Your task to perform on an android device: What's the weather? Image 0: 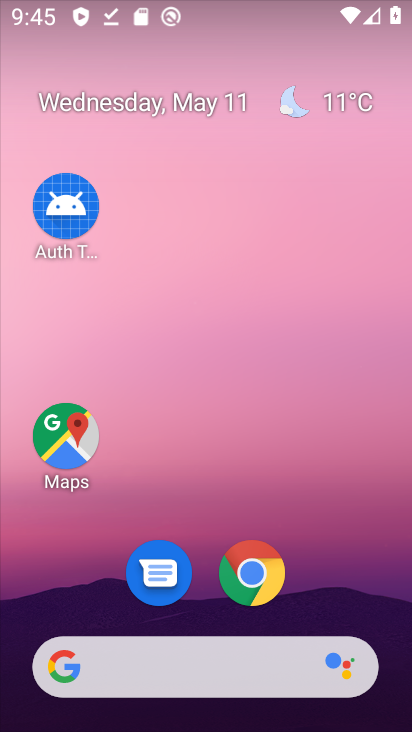
Step 0: drag from (351, 631) to (134, 61)
Your task to perform on an android device: What's the weather? Image 1: 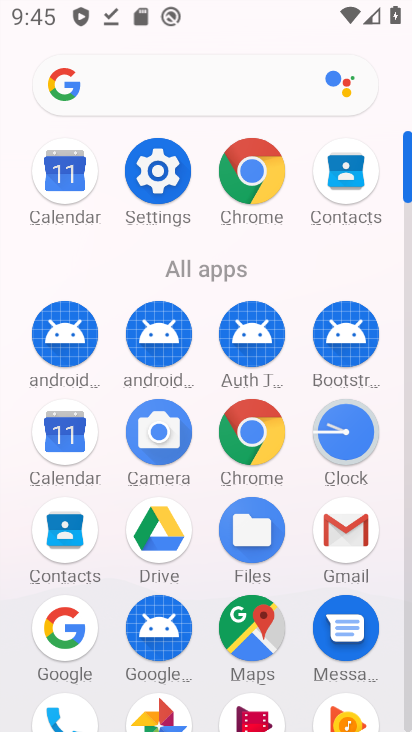
Step 1: press back button
Your task to perform on an android device: What's the weather? Image 2: 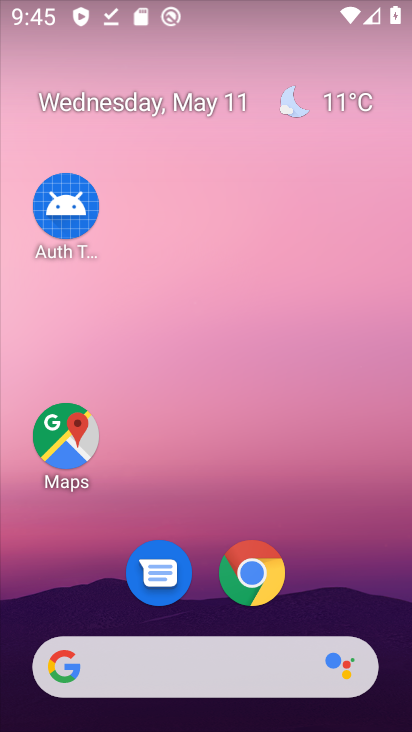
Step 2: drag from (6, 172) to (400, 390)
Your task to perform on an android device: What's the weather? Image 3: 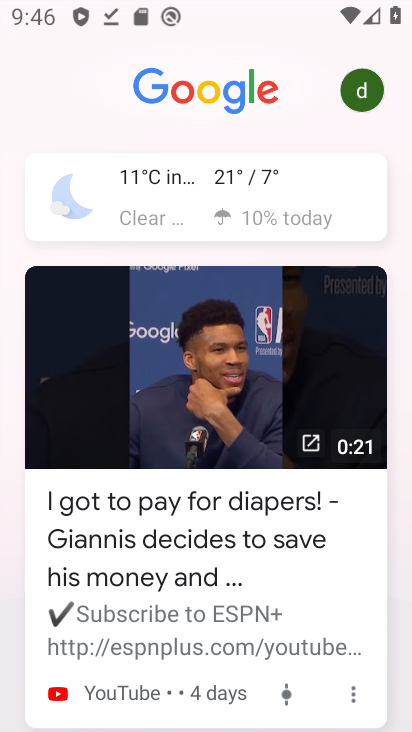
Step 3: click (177, 199)
Your task to perform on an android device: What's the weather? Image 4: 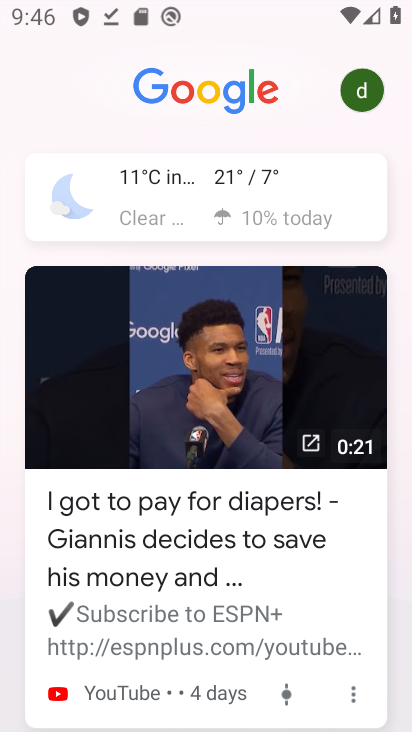
Step 4: click (178, 199)
Your task to perform on an android device: What's the weather? Image 5: 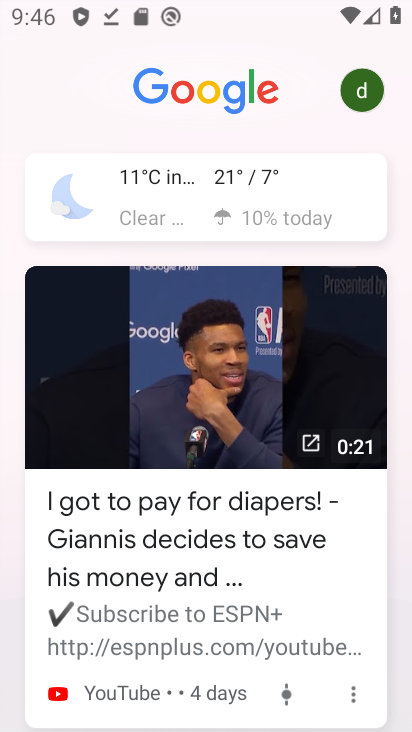
Step 5: click (179, 200)
Your task to perform on an android device: What's the weather? Image 6: 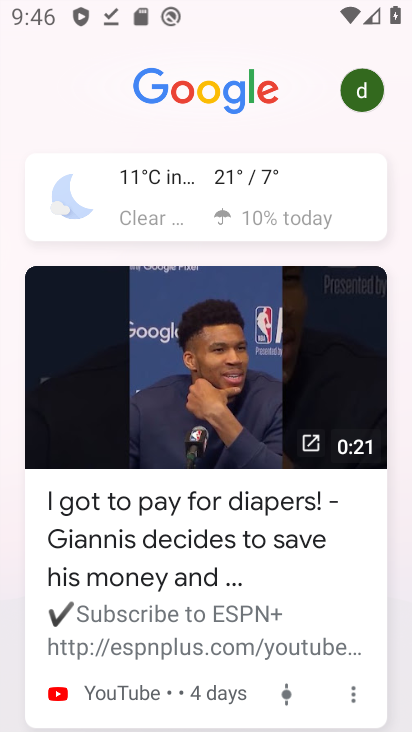
Step 6: click (181, 199)
Your task to perform on an android device: What's the weather? Image 7: 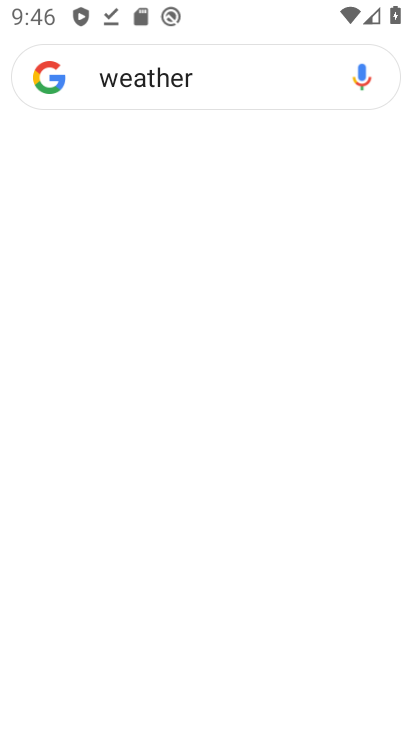
Step 7: click (229, 203)
Your task to perform on an android device: What's the weather? Image 8: 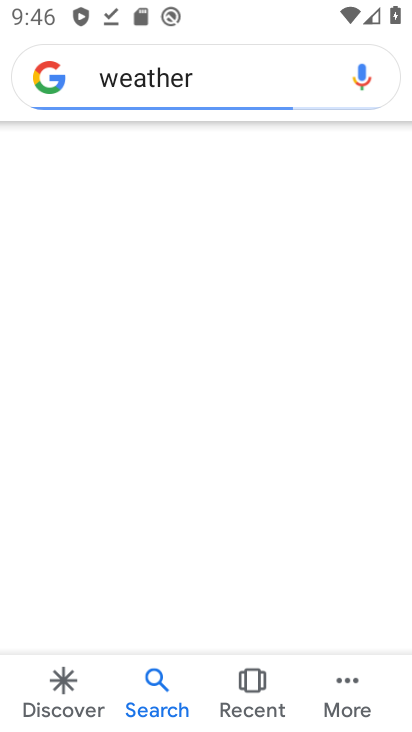
Step 8: click (229, 203)
Your task to perform on an android device: What's the weather? Image 9: 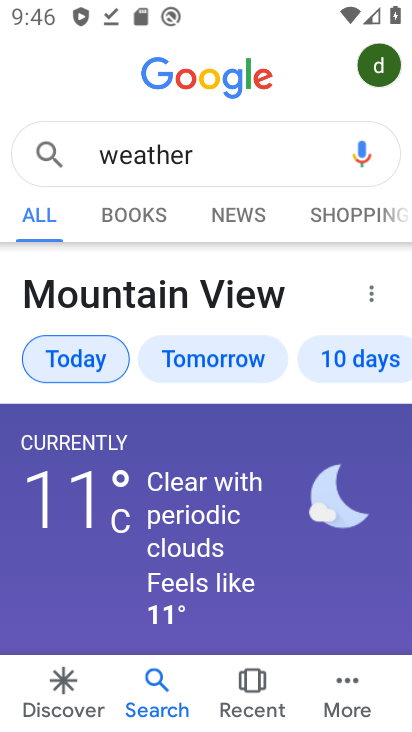
Step 9: click (229, 364)
Your task to perform on an android device: What's the weather? Image 10: 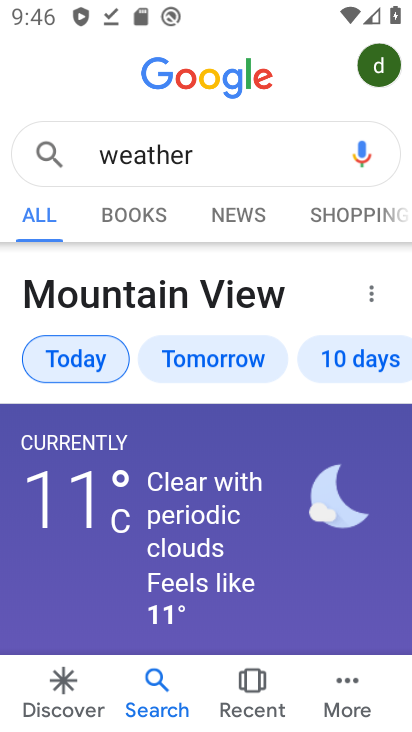
Step 10: click (229, 364)
Your task to perform on an android device: What's the weather? Image 11: 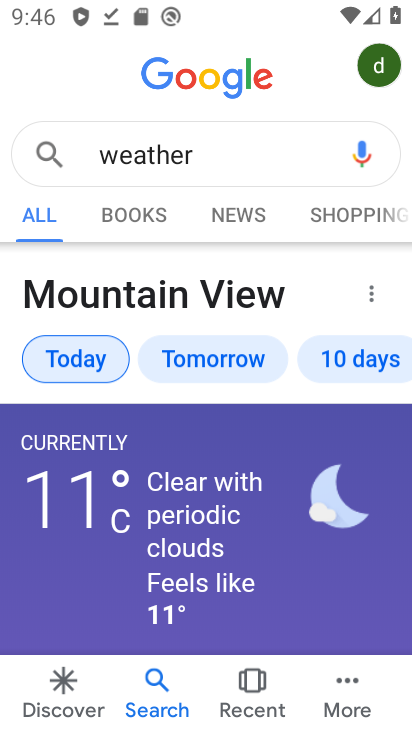
Step 11: click (228, 375)
Your task to perform on an android device: What's the weather? Image 12: 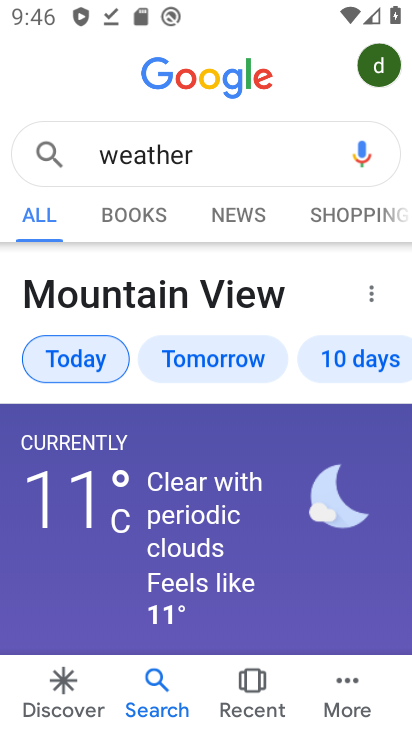
Step 12: click (229, 378)
Your task to perform on an android device: What's the weather? Image 13: 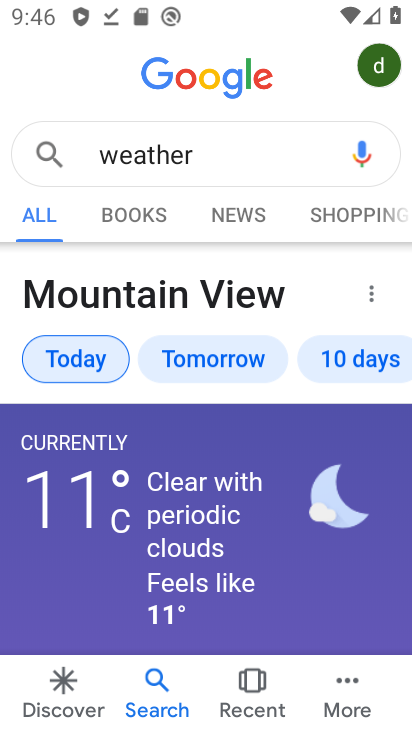
Step 13: click (229, 378)
Your task to perform on an android device: What's the weather? Image 14: 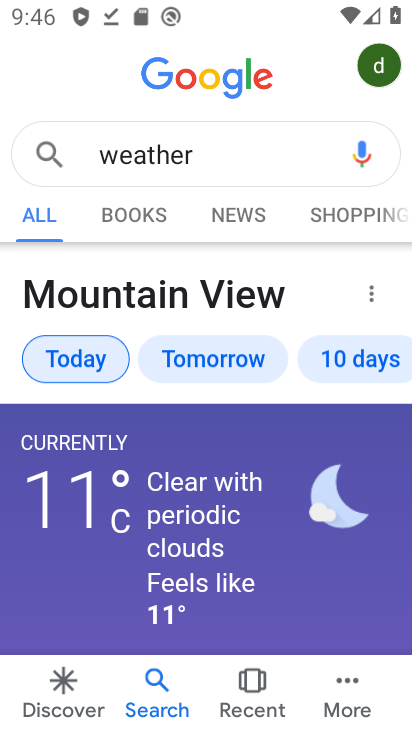
Step 14: click (223, 366)
Your task to perform on an android device: What's the weather? Image 15: 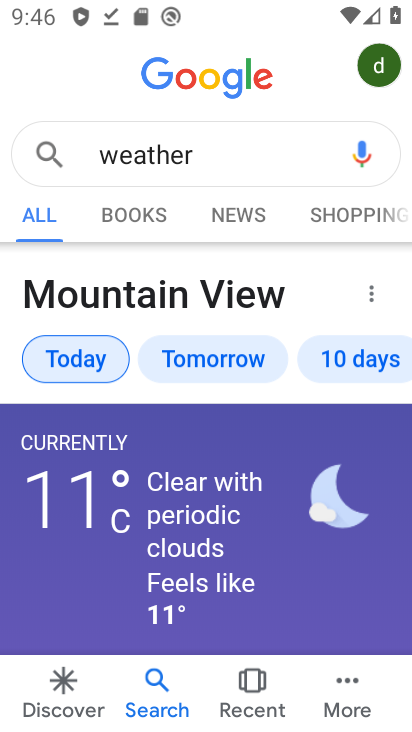
Step 15: click (203, 345)
Your task to perform on an android device: What's the weather? Image 16: 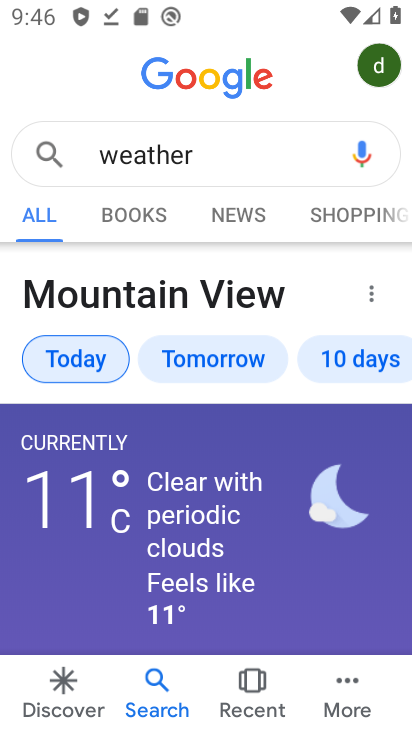
Step 16: drag from (190, 589) to (162, 243)
Your task to perform on an android device: What's the weather? Image 17: 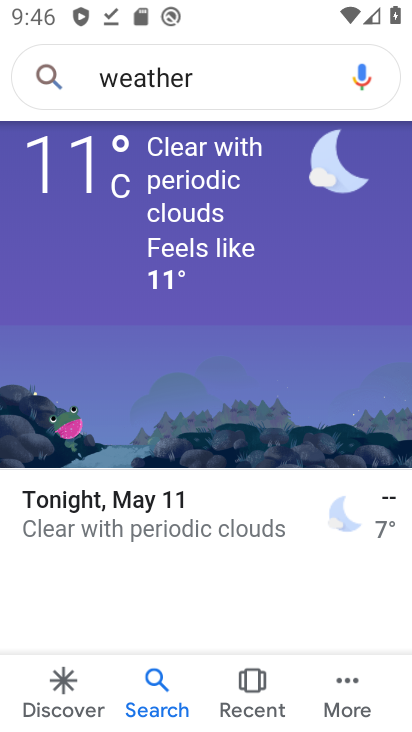
Step 17: drag from (192, 512) to (208, 172)
Your task to perform on an android device: What's the weather? Image 18: 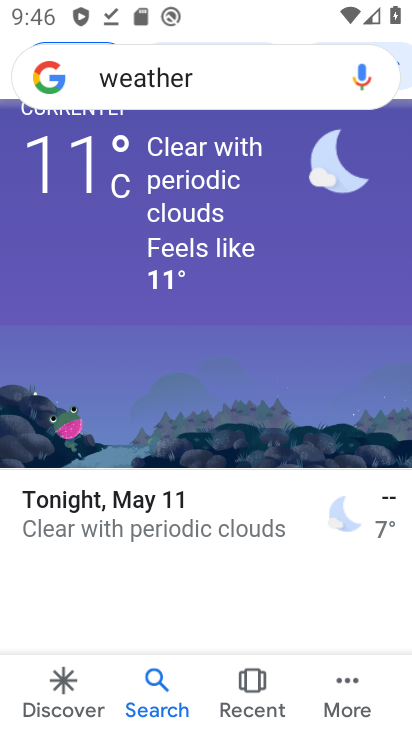
Step 18: drag from (209, 527) to (272, 94)
Your task to perform on an android device: What's the weather? Image 19: 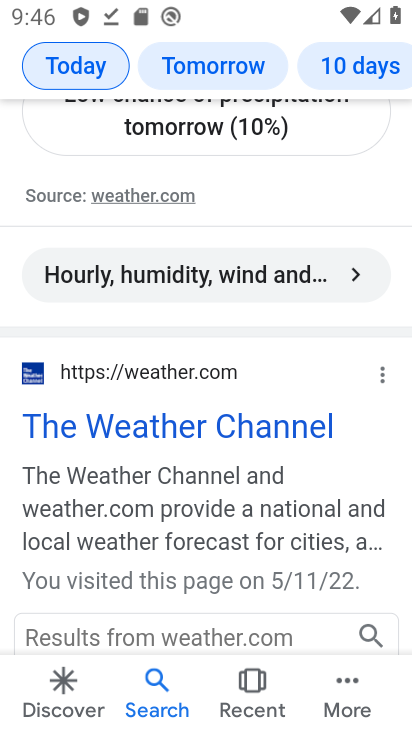
Step 19: click (245, 365)
Your task to perform on an android device: What's the weather? Image 20: 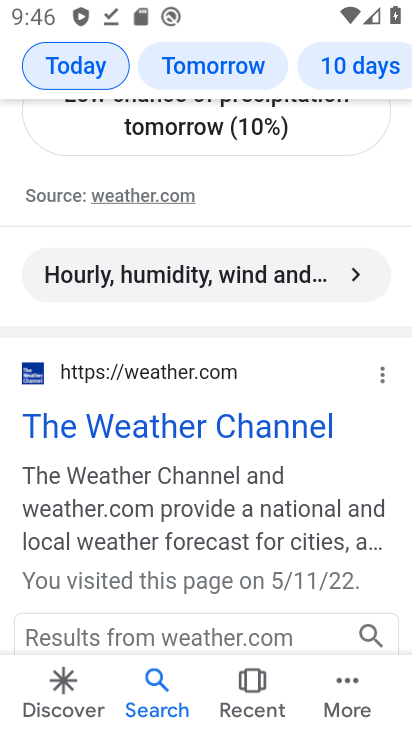
Step 20: task complete